Your task to perform on an android device: Do I have any events today? Image 0: 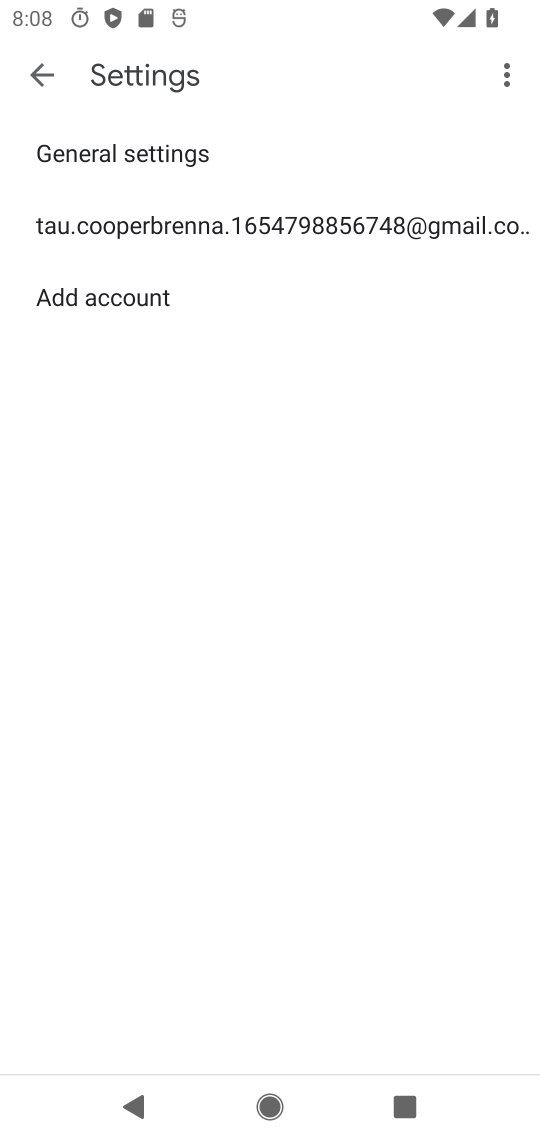
Step 0: press home button
Your task to perform on an android device: Do I have any events today? Image 1: 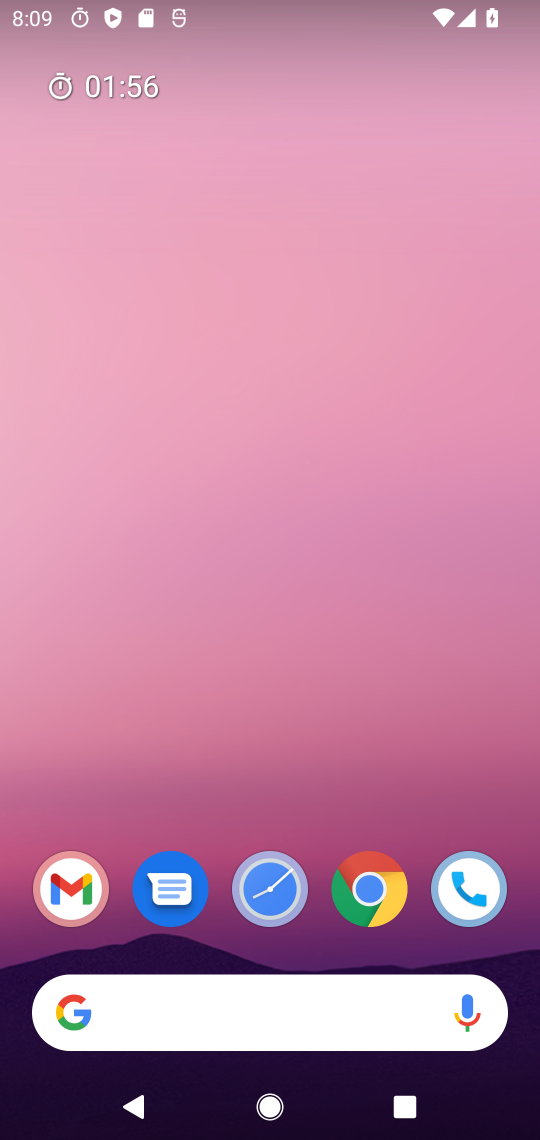
Step 1: drag from (333, 692) to (344, 14)
Your task to perform on an android device: Do I have any events today? Image 2: 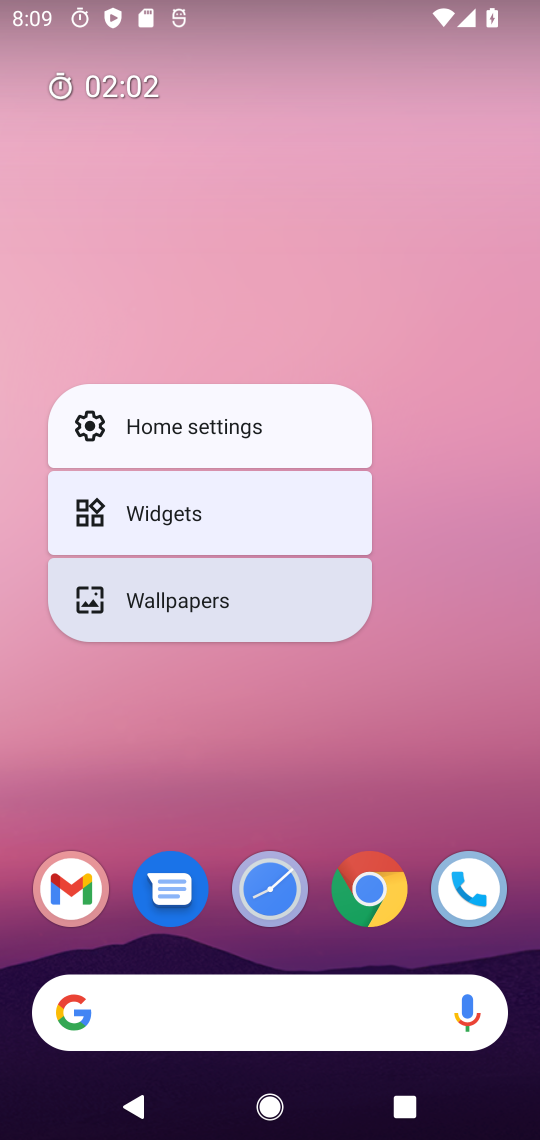
Step 2: click (315, 678)
Your task to perform on an android device: Do I have any events today? Image 3: 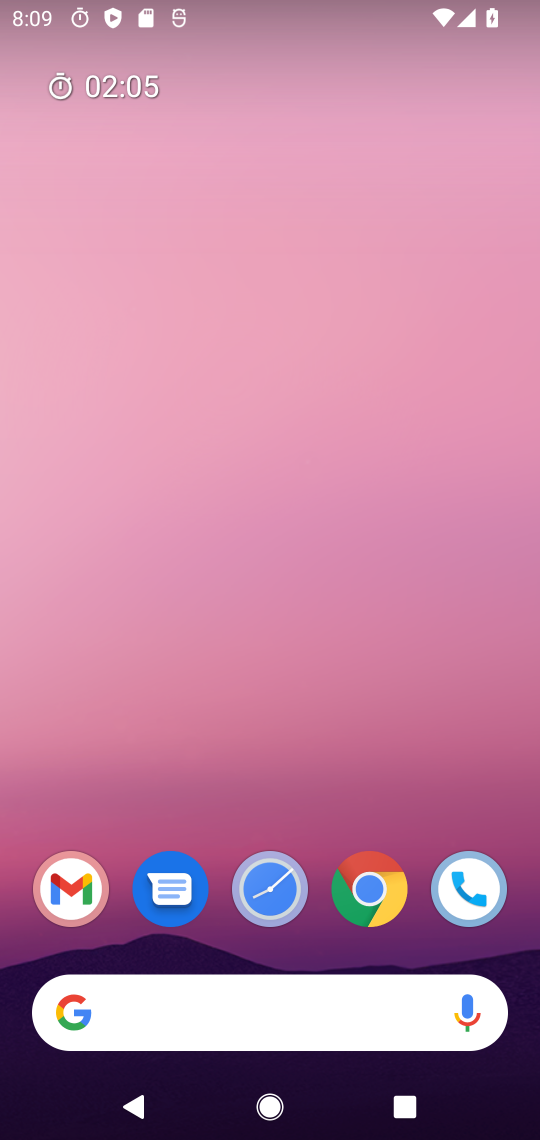
Step 3: drag from (301, 795) to (261, 0)
Your task to perform on an android device: Do I have any events today? Image 4: 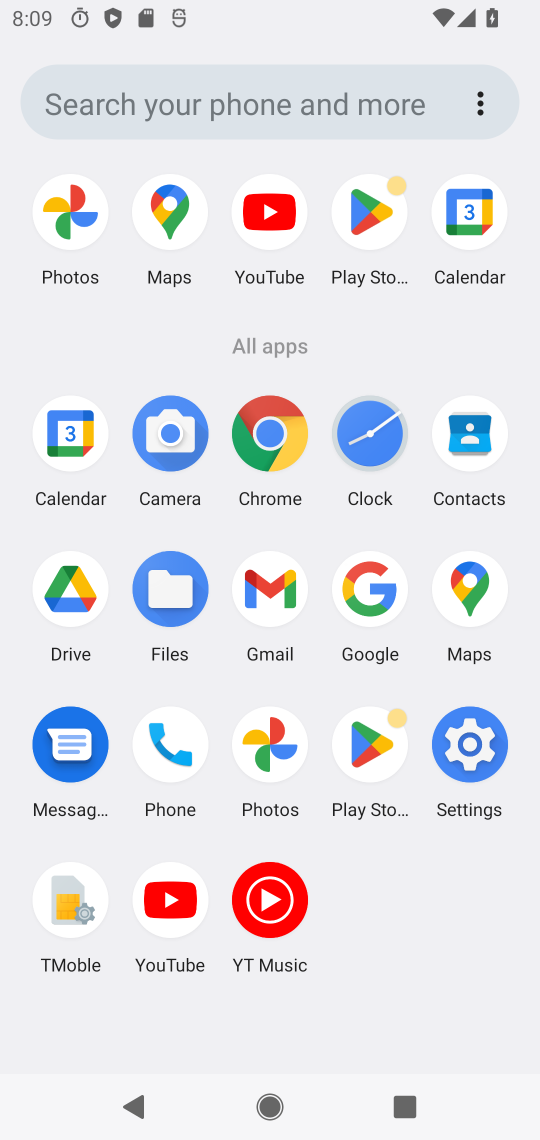
Step 4: click (61, 456)
Your task to perform on an android device: Do I have any events today? Image 5: 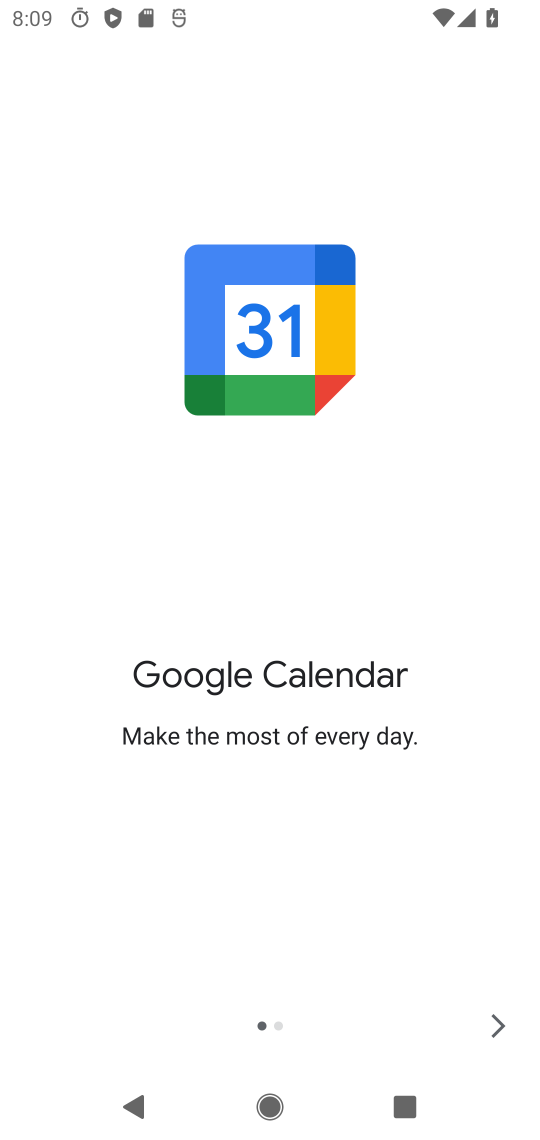
Step 5: click (500, 1038)
Your task to perform on an android device: Do I have any events today? Image 6: 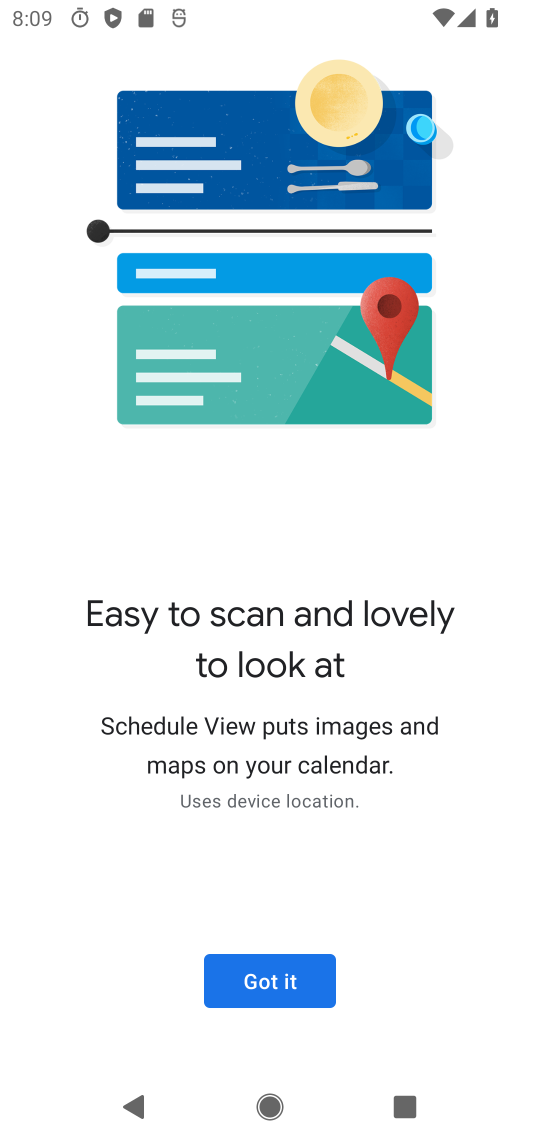
Step 6: click (249, 985)
Your task to perform on an android device: Do I have any events today? Image 7: 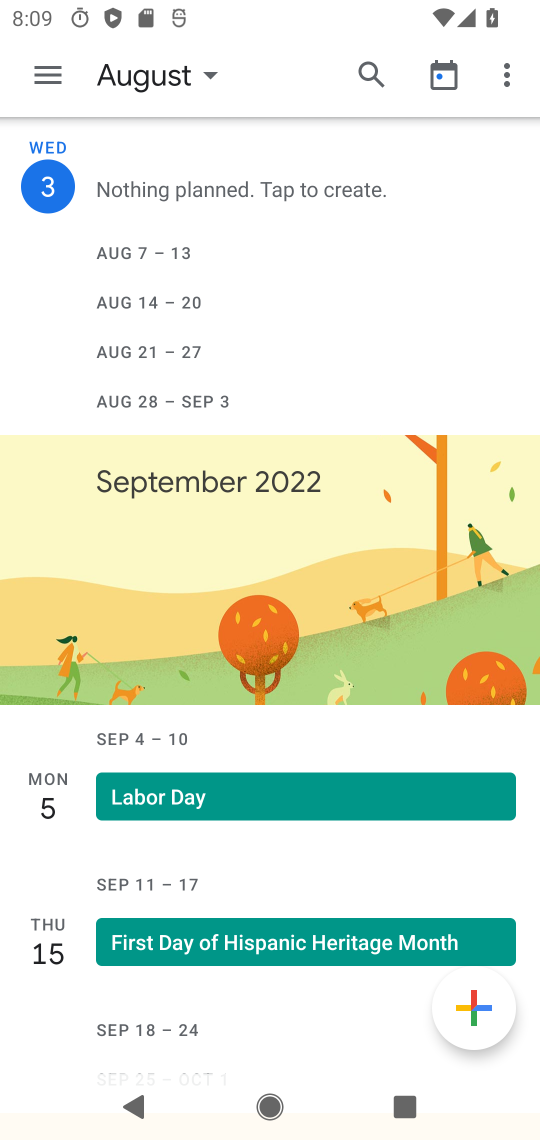
Step 7: click (180, 77)
Your task to perform on an android device: Do I have any events today? Image 8: 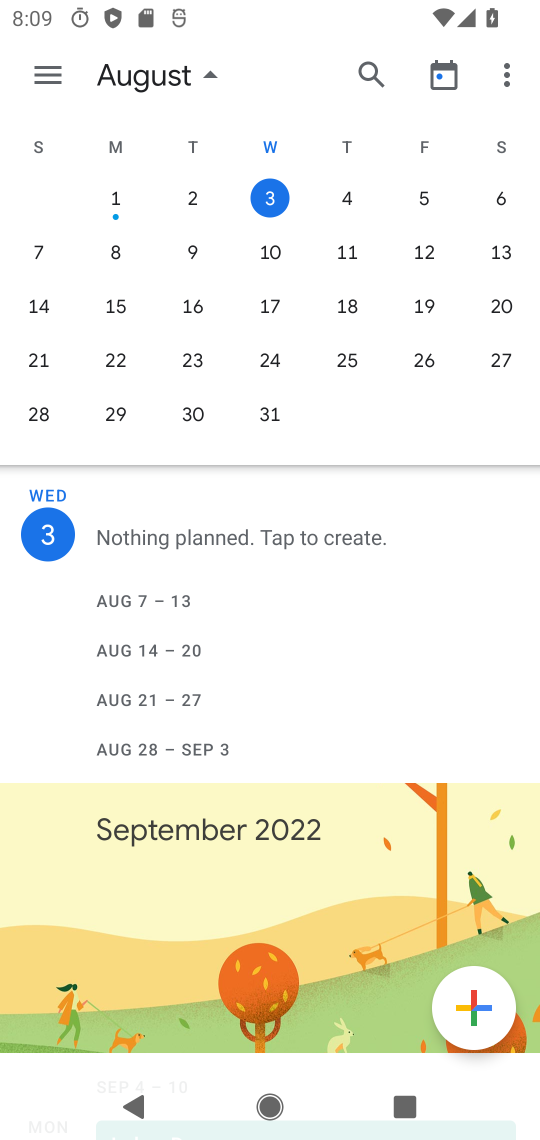
Step 8: click (259, 198)
Your task to perform on an android device: Do I have any events today? Image 9: 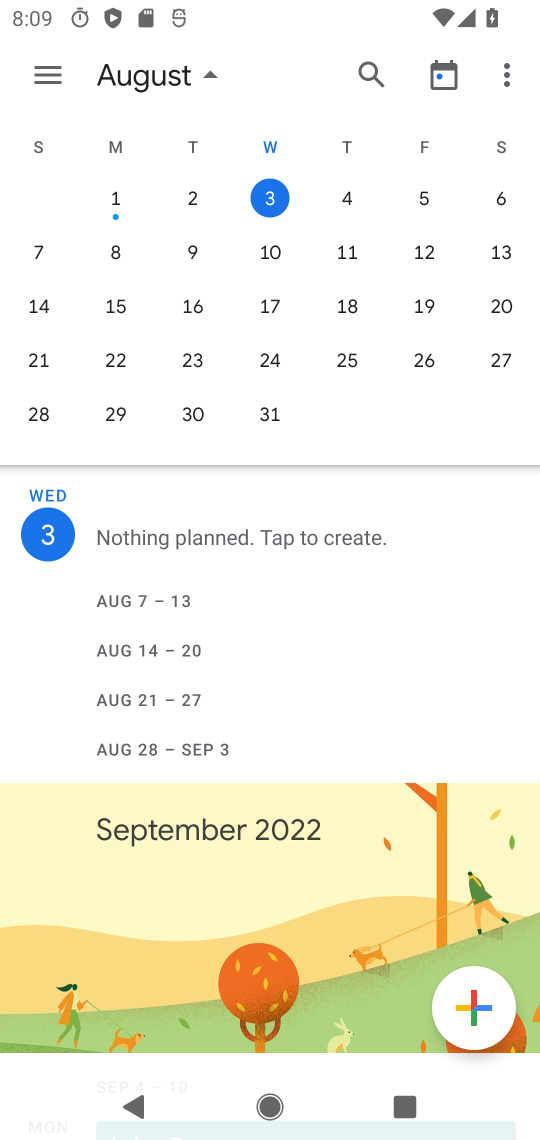
Step 9: task complete